Your task to perform on an android device: Open display settings Image 0: 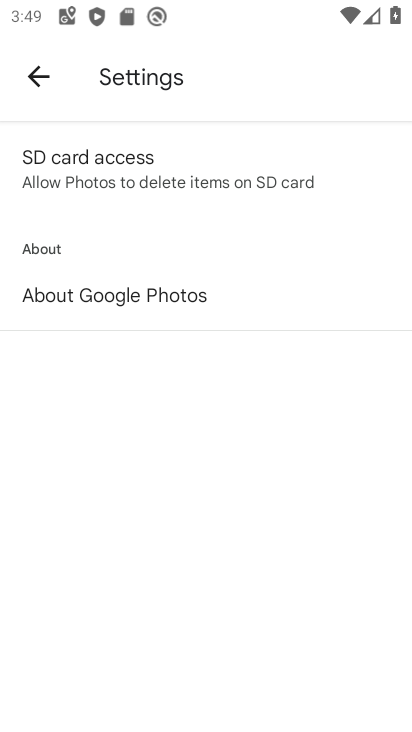
Step 0: press home button
Your task to perform on an android device: Open display settings Image 1: 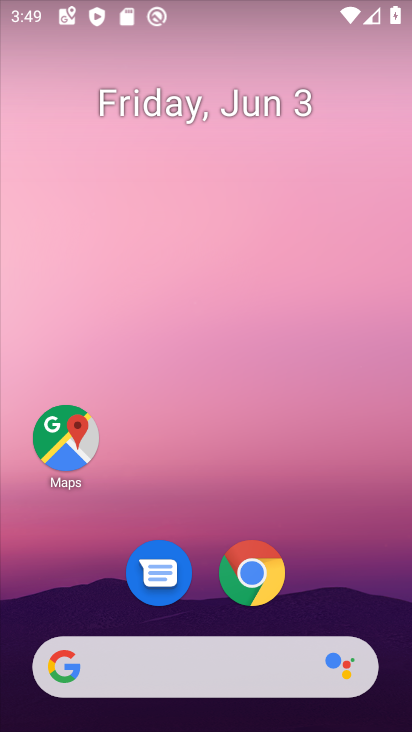
Step 1: drag from (396, 702) to (333, 150)
Your task to perform on an android device: Open display settings Image 2: 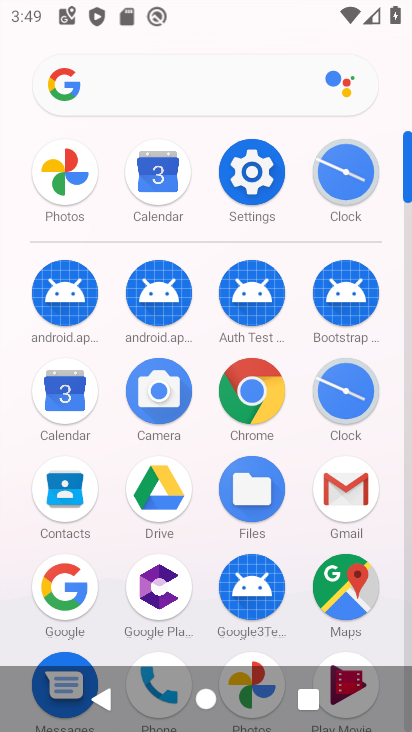
Step 2: click (250, 164)
Your task to perform on an android device: Open display settings Image 3: 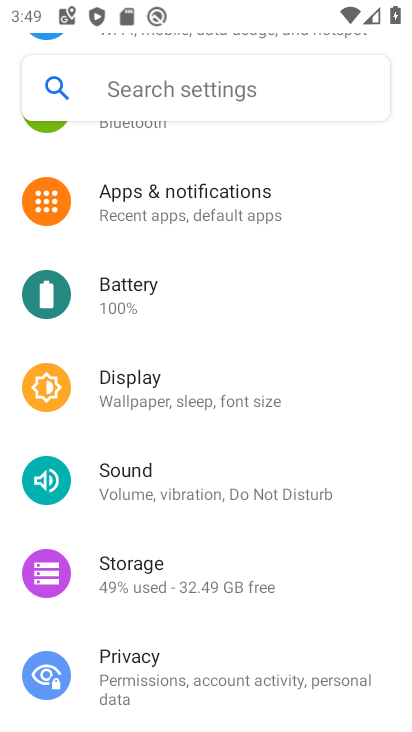
Step 3: click (137, 395)
Your task to perform on an android device: Open display settings Image 4: 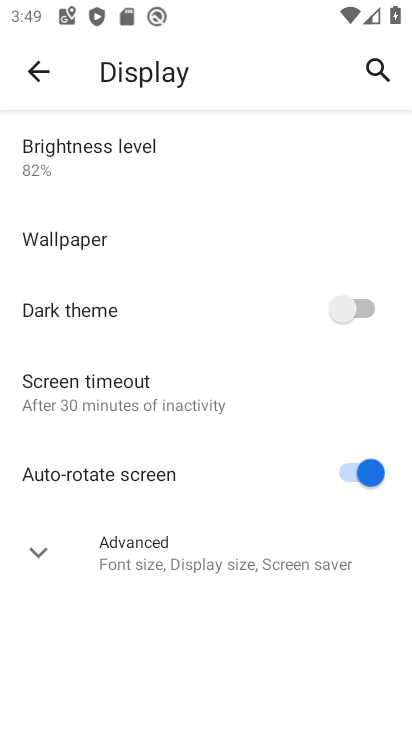
Step 4: click (44, 560)
Your task to perform on an android device: Open display settings Image 5: 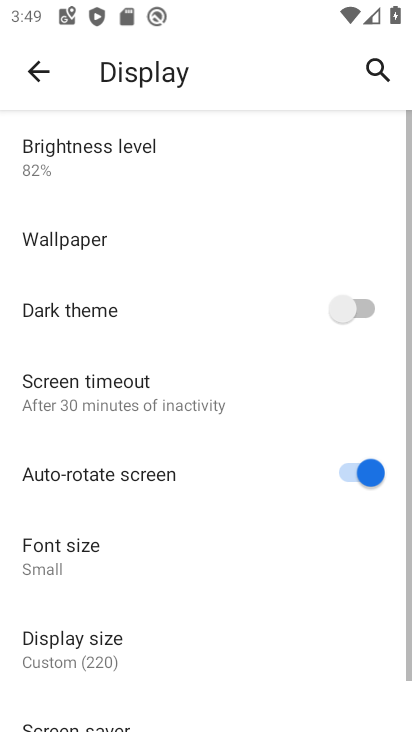
Step 5: task complete